Your task to perform on an android device: turn on airplane mode Image 0: 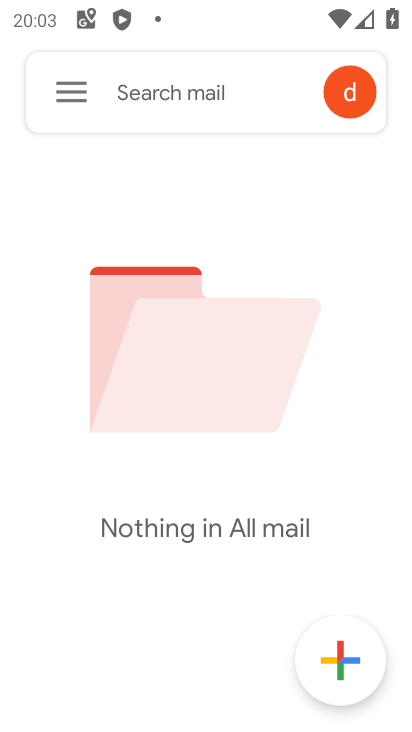
Step 0: drag from (267, 12) to (219, 659)
Your task to perform on an android device: turn on airplane mode Image 1: 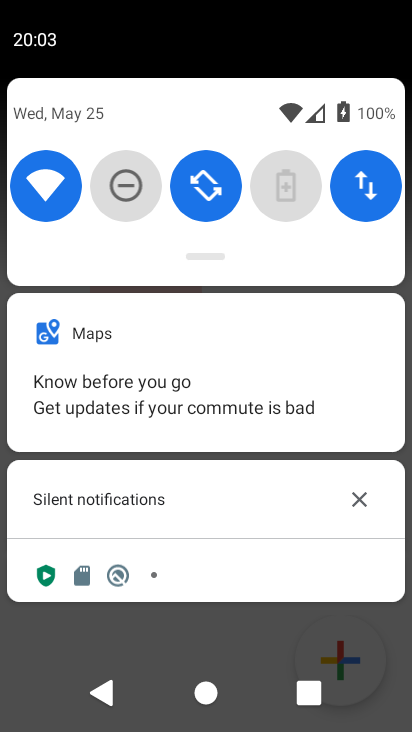
Step 1: drag from (197, 135) to (271, 654)
Your task to perform on an android device: turn on airplane mode Image 2: 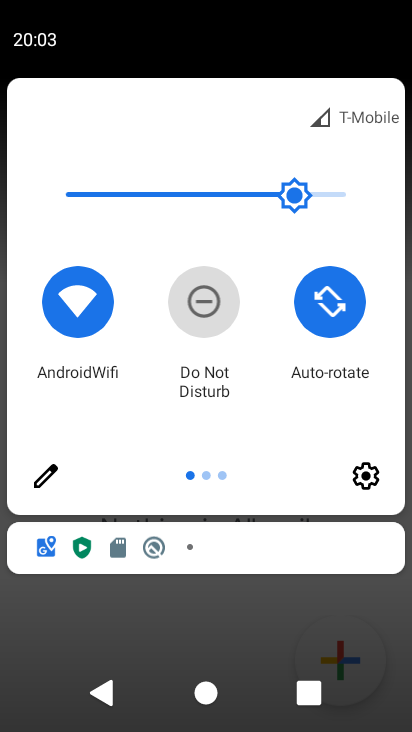
Step 2: drag from (358, 428) to (70, 458)
Your task to perform on an android device: turn on airplane mode Image 3: 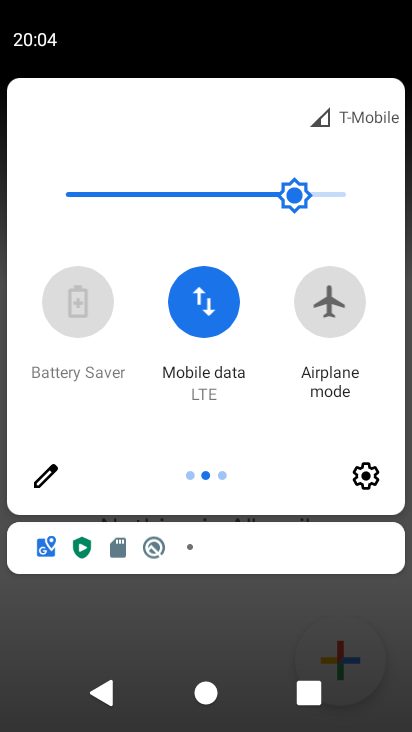
Step 3: click (341, 309)
Your task to perform on an android device: turn on airplane mode Image 4: 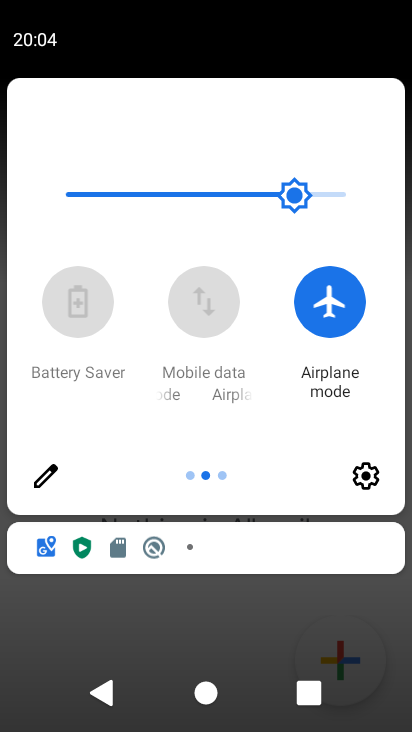
Step 4: task complete